Your task to perform on an android device: turn off improve location accuracy Image 0: 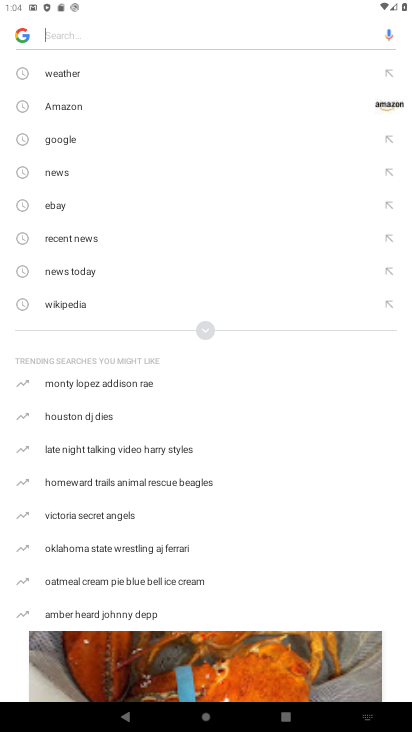
Step 0: press home button
Your task to perform on an android device: turn off improve location accuracy Image 1: 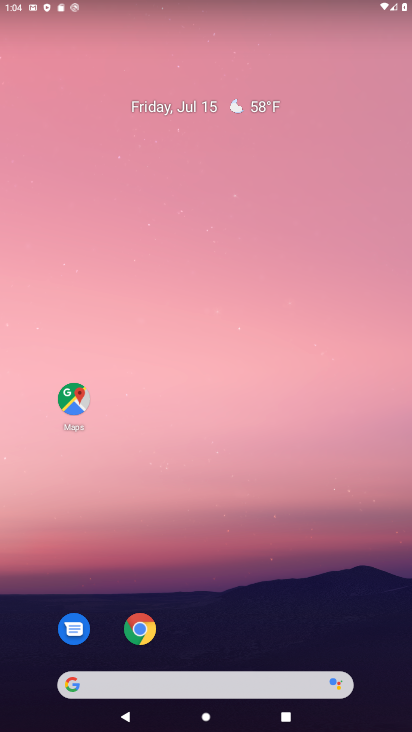
Step 1: drag from (292, 451) to (230, 28)
Your task to perform on an android device: turn off improve location accuracy Image 2: 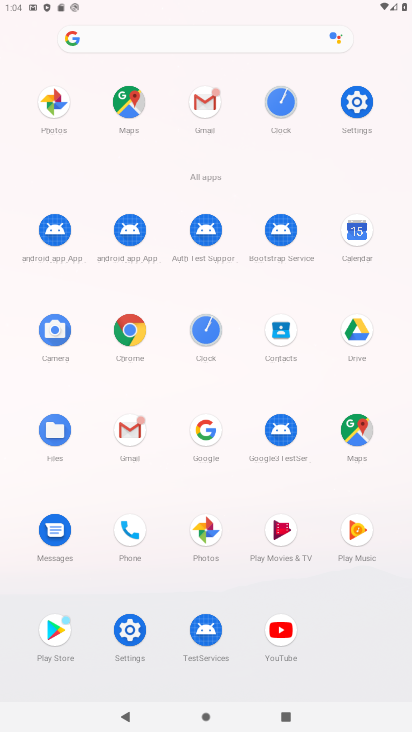
Step 2: click (351, 106)
Your task to perform on an android device: turn off improve location accuracy Image 3: 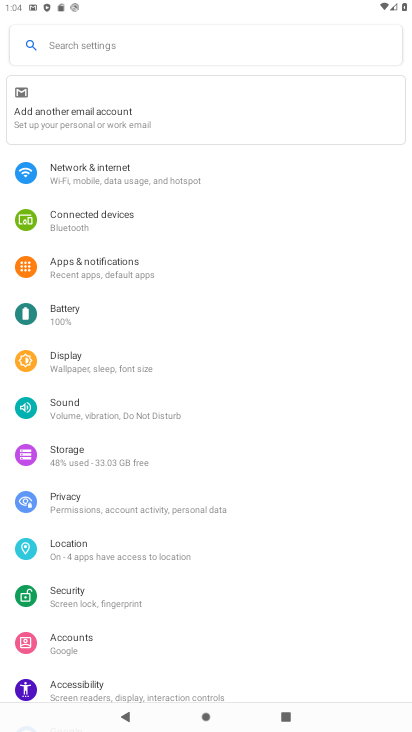
Step 3: click (120, 564)
Your task to perform on an android device: turn off improve location accuracy Image 4: 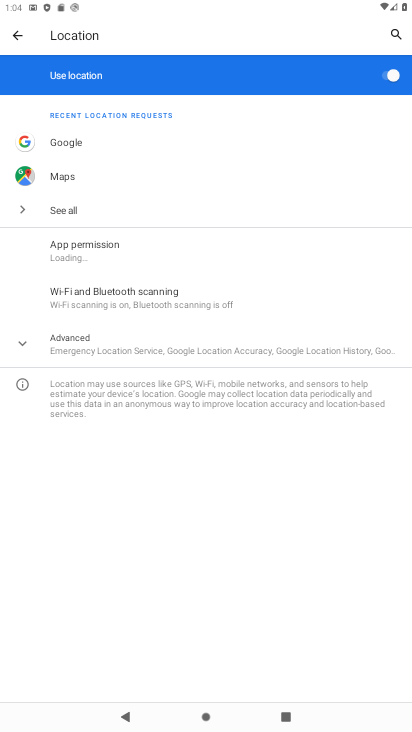
Step 4: click (157, 346)
Your task to perform on an android device: turn off improve location accuracy Image 5: 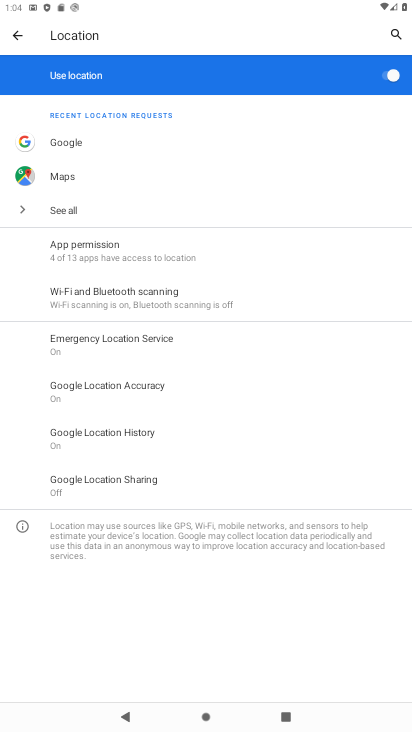
Step 5: click (169, 390)
Your task to perform on an android device: turn off improve location accuracy Image 6: 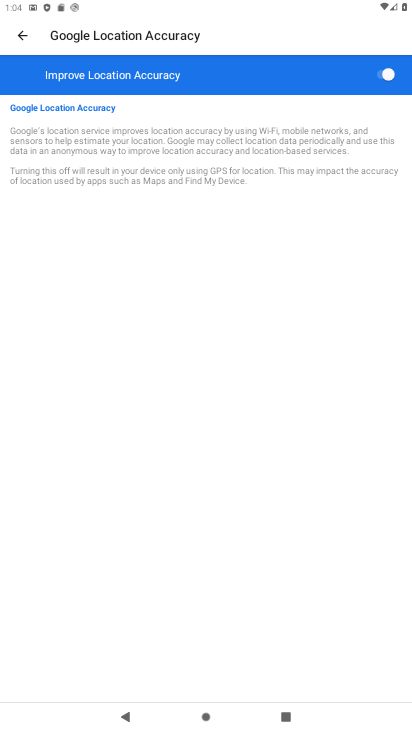
Step 6: click (387, 73)
Your task to perform on an android device: turn off improve location accuracy Image 7: 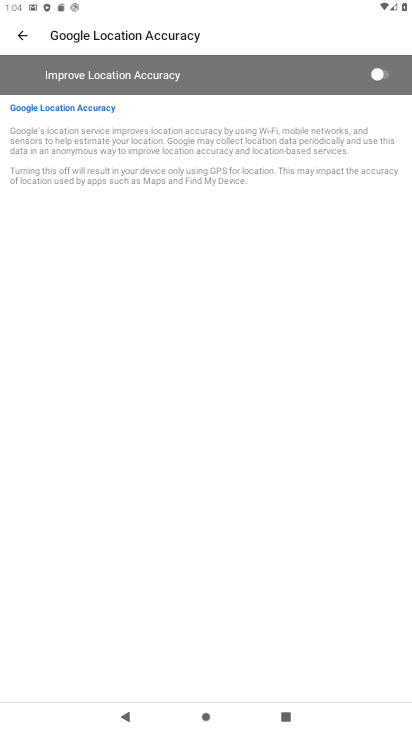
Step 7: task complete